Your task to perform on an android device: turn off priority inbox in the gmail app Image 0: 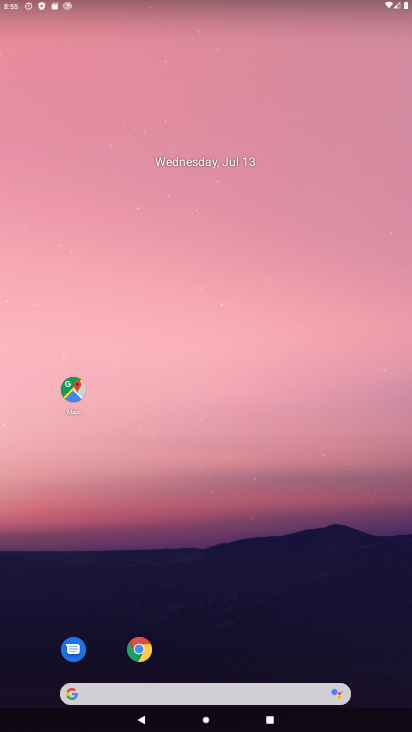
Step 0: drag from (237, 616) to (393, 654)
Your task to perform on an android device: turn off priority inbox in the gmail app Image 1: 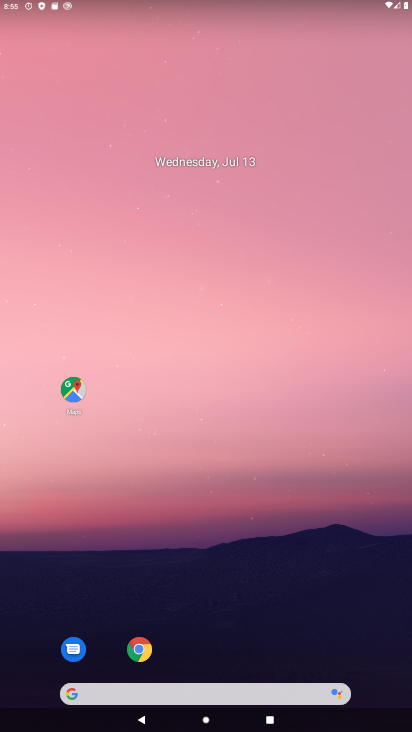
Step 1: drag from (228, 684) to (238, 0)
Your task to perform on an android device: turn off priority inbox in the gmail app Image 2: 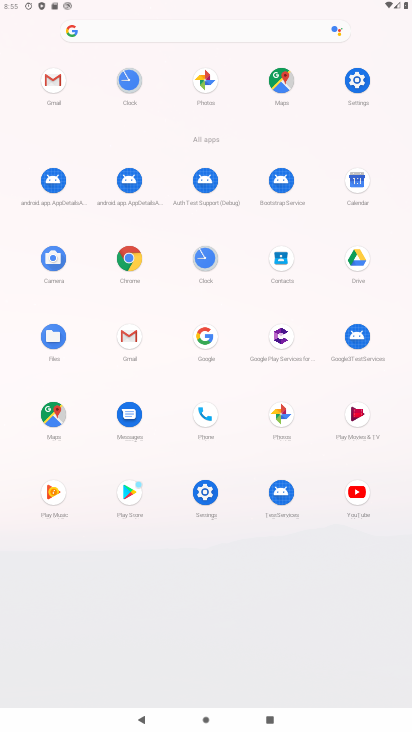
Step 2: click (133, 341)
Your task to perform on an android device: turn off priority inbox in the gmail app Image 3: 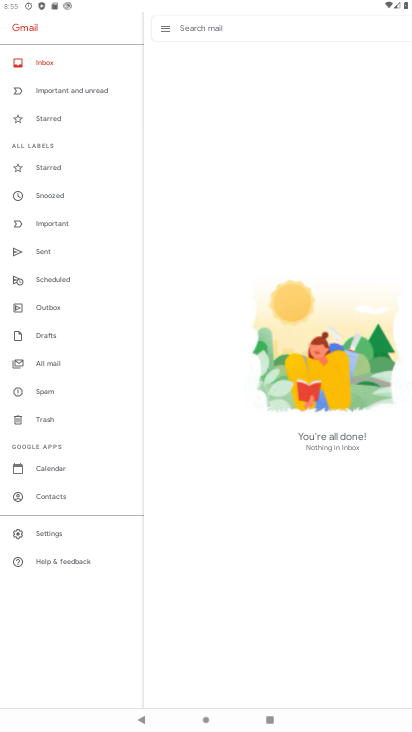
Step 3: click (50, 536)
Your task to perform on an android device: turn off priority inbox in the gmail app Image 4: 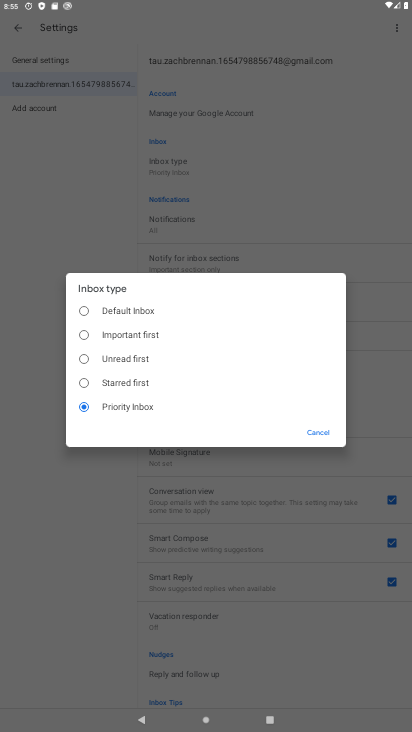
Step 4: click (84, 305)
Your task to perform on an android device: turn off priority inbox in the gmail app Image 5: 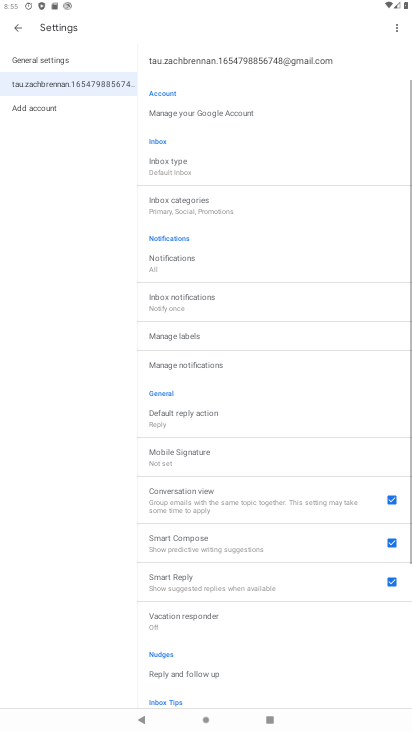
Step 5: task complete